Your task to perform on an android device: check out phone information Image 0: 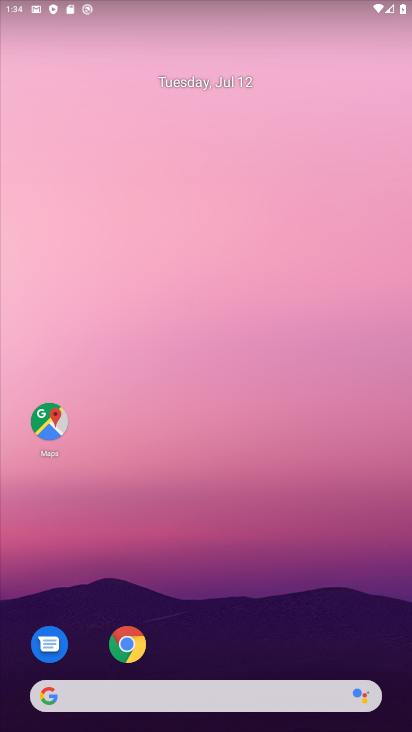
Step 0: drag from (234, 653) to (257, 87)
Your task to perform on an android device: check out phone information Image 1: 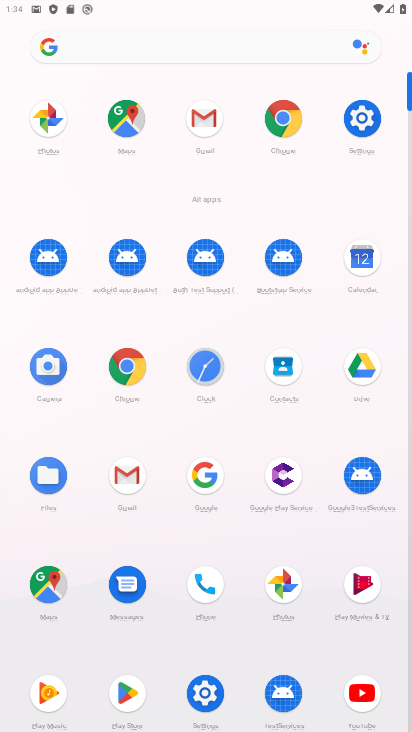
Step 1: click (362, 117)
Your task to perform on an android device: check out phone information Image 2: 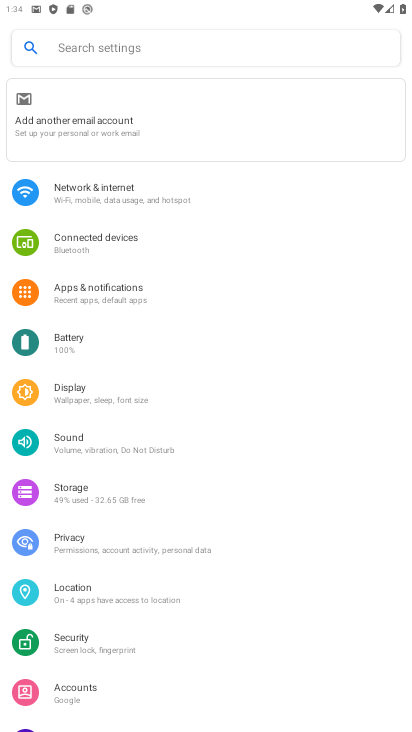
Step 2: drag from (121, 604) to (229, 118)
Your task to perform on an android device: check out phone information Image 3: 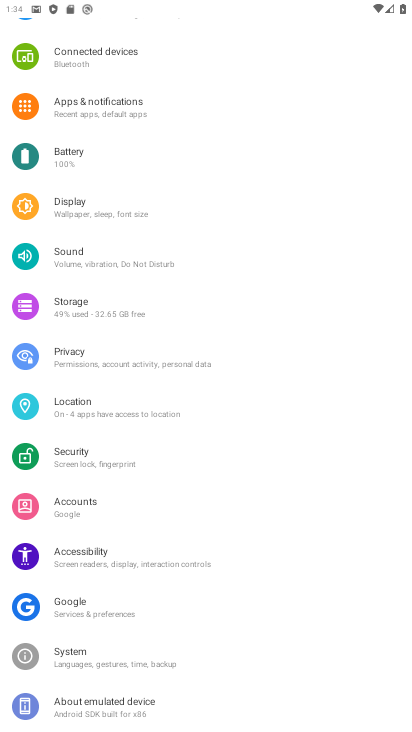
Step 3: click (126, 693)
Your task to perform on an android device: check out phone information Image 4: 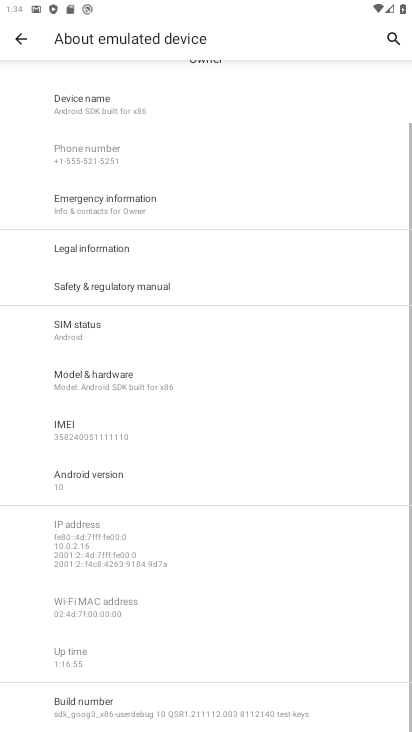
Step 4: task complete